Your task to perform on an android device: turn on bluetooth scan Image 0: 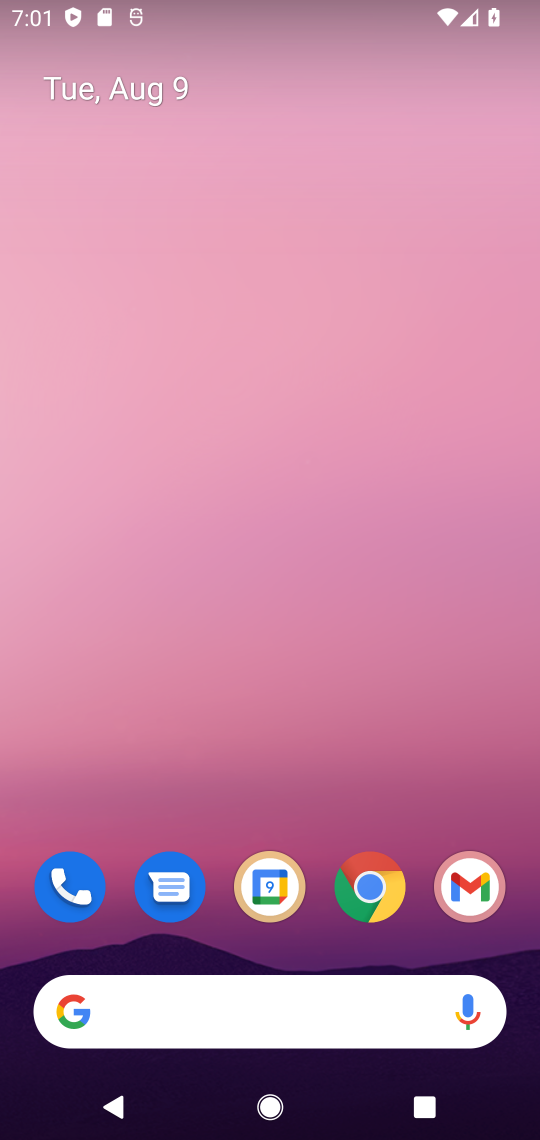
Step 0: drag from (300, 785) to (371, 3)
Your task to perform on an android device: turn on bluetooth scan Image 1: 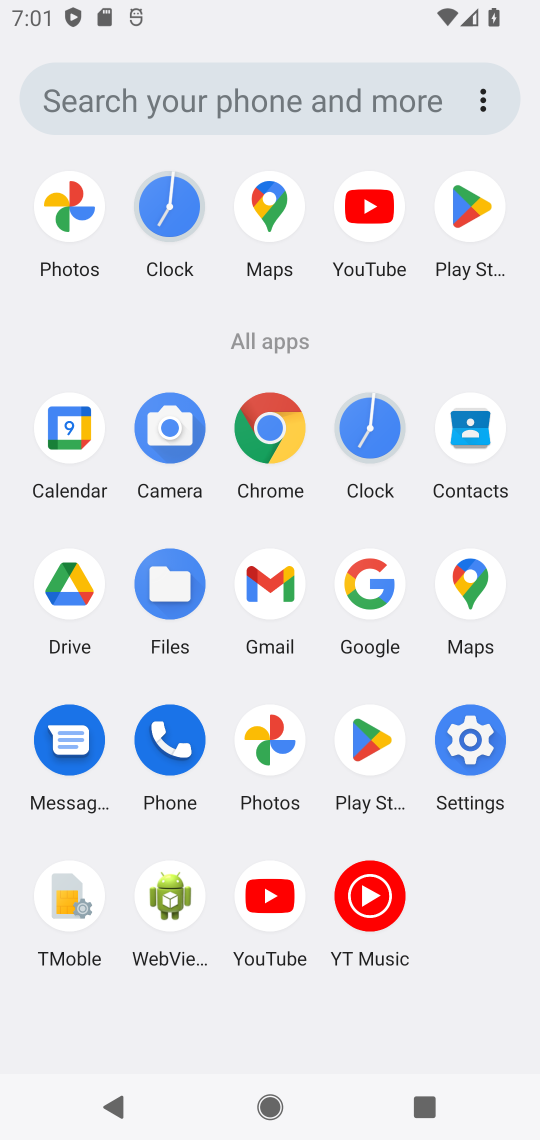
Step 1: click (468, 745)
Your task to perform on an android device: turn on bluetooth scan Image 2: 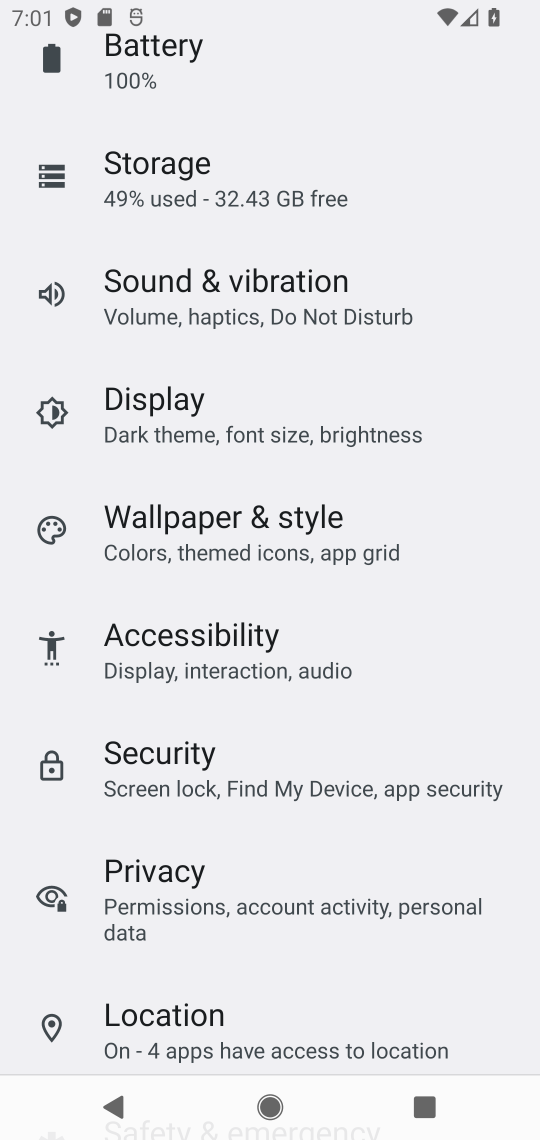
Step 2: drag from (347, 965) to (367, 235)
Your task to perform on an android device: turn on bluetooth scan Image 3: 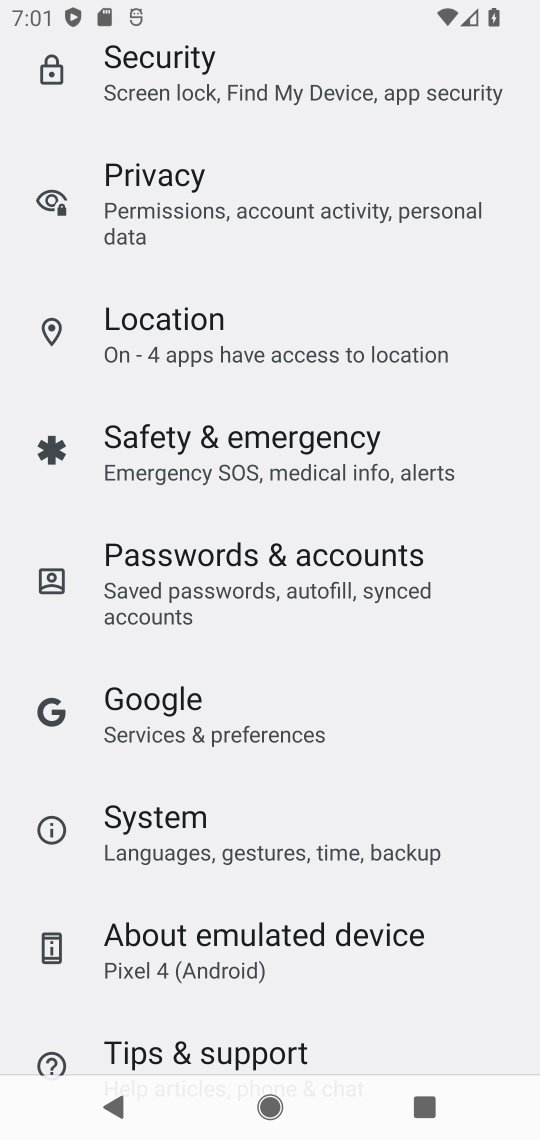
Step 3: click (293, 346)
Your task to perform on an android device: turn on bluetooth scan Image 4: 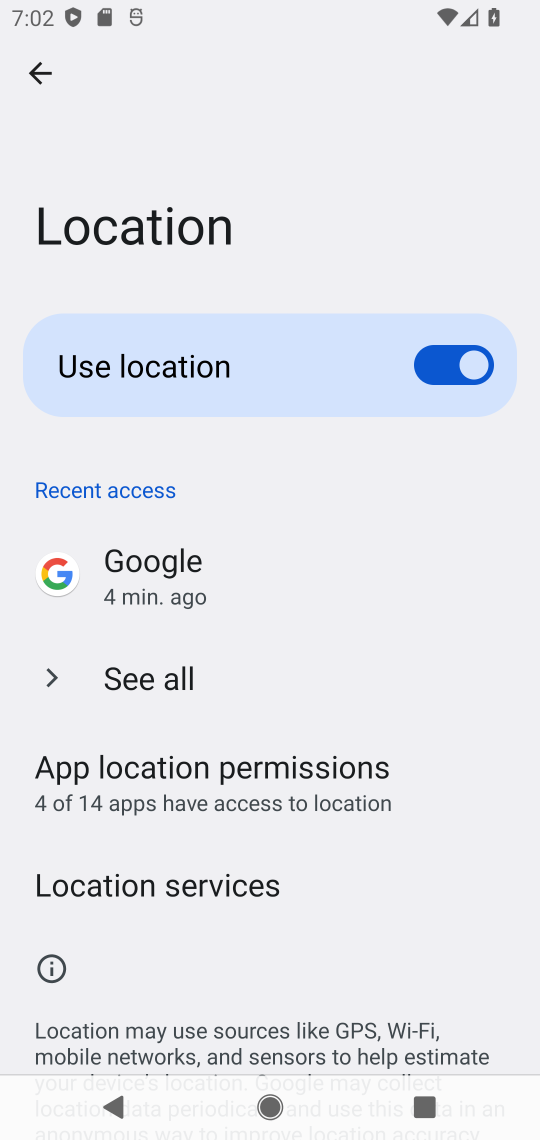
Step 4: drag from (295, 937) to (299, 385)
Your task to perform on an android device: turn on bluetooth scan Image 5: 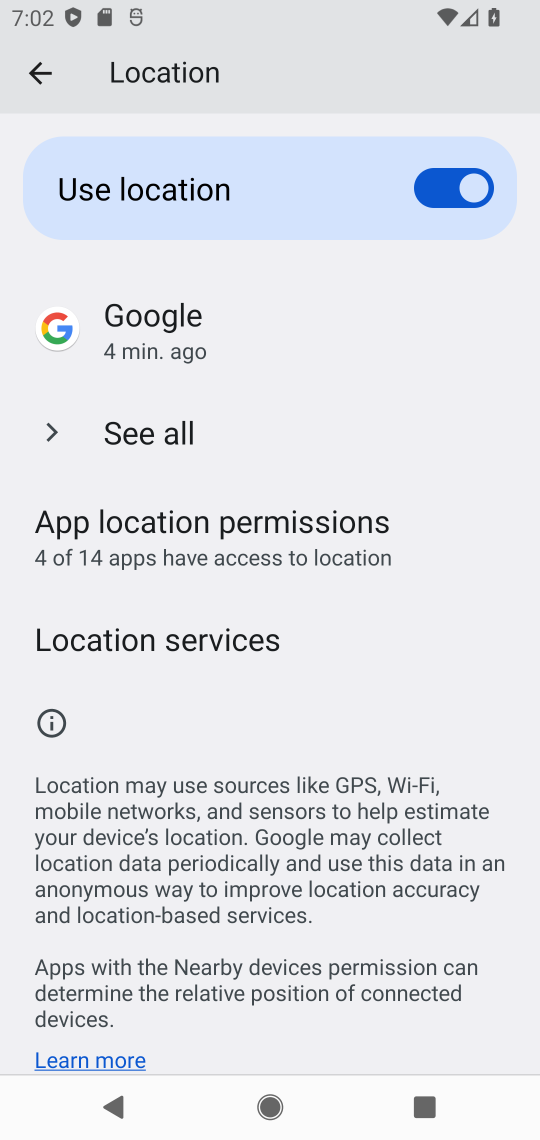
Step 5: click (145, 641)
Your task to perform on an android device: turn on bluetooth scan Image 6: 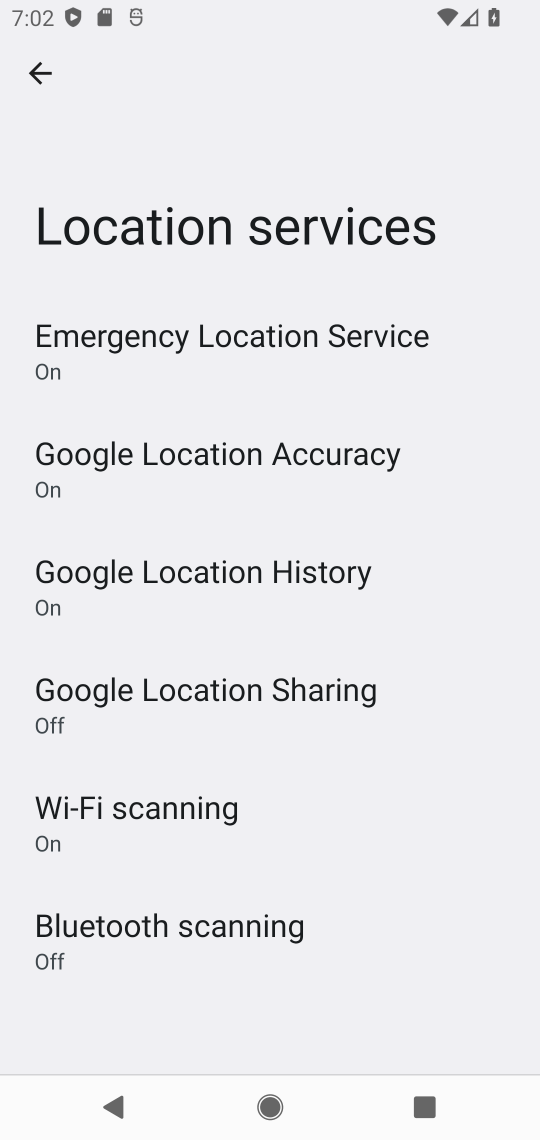
Step 6: click (195, 924)
Your task to perform on an android device: turn on bluetooth scan Image 7: 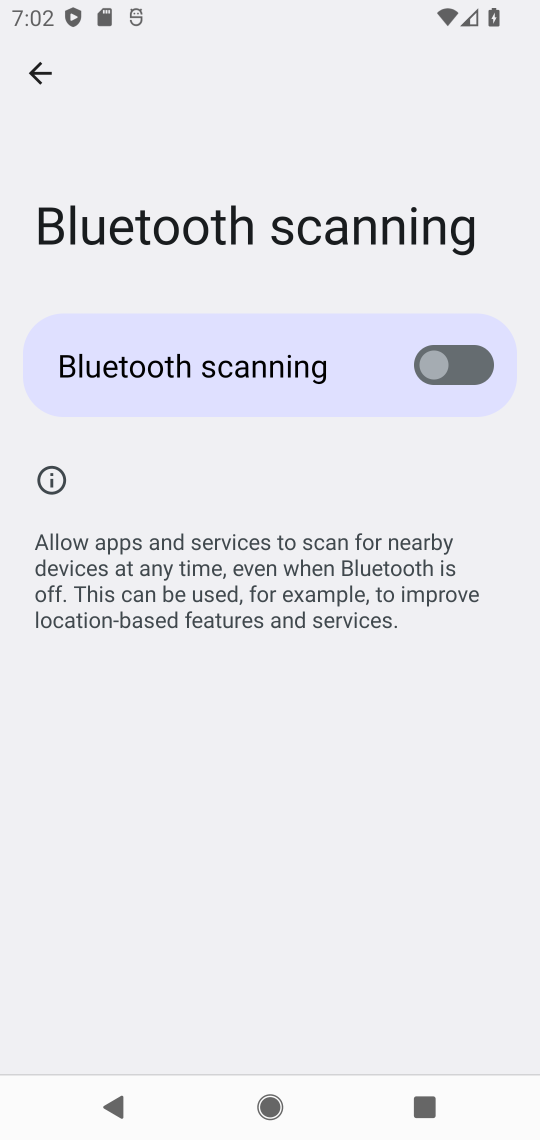
Step 7: click (472, 349)
Your task to perform on an android device: turn on bluetooth scan Image 8: 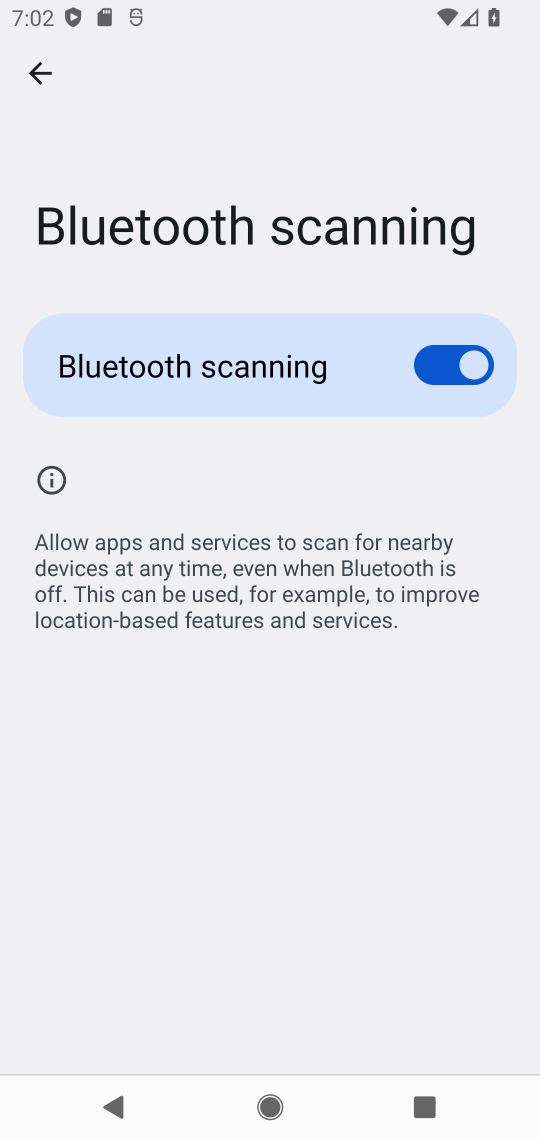
Step 8: task complete